Your task to perform on an android device: open app "Airtel Thanks" Image 0: 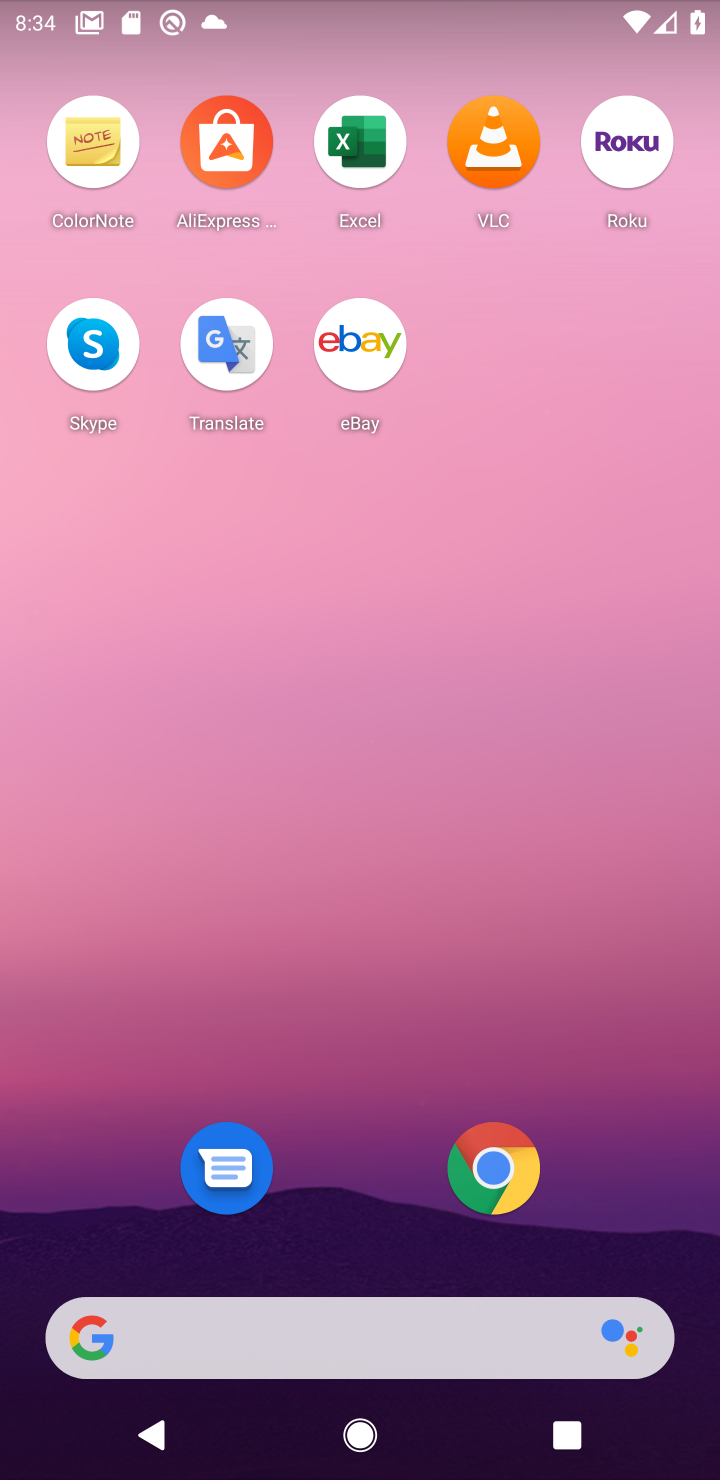
Step 0: drag from (382, 1060) to (137, 24)
Your task to perform on an android device: open app "Airtel Thanks" Image 1: 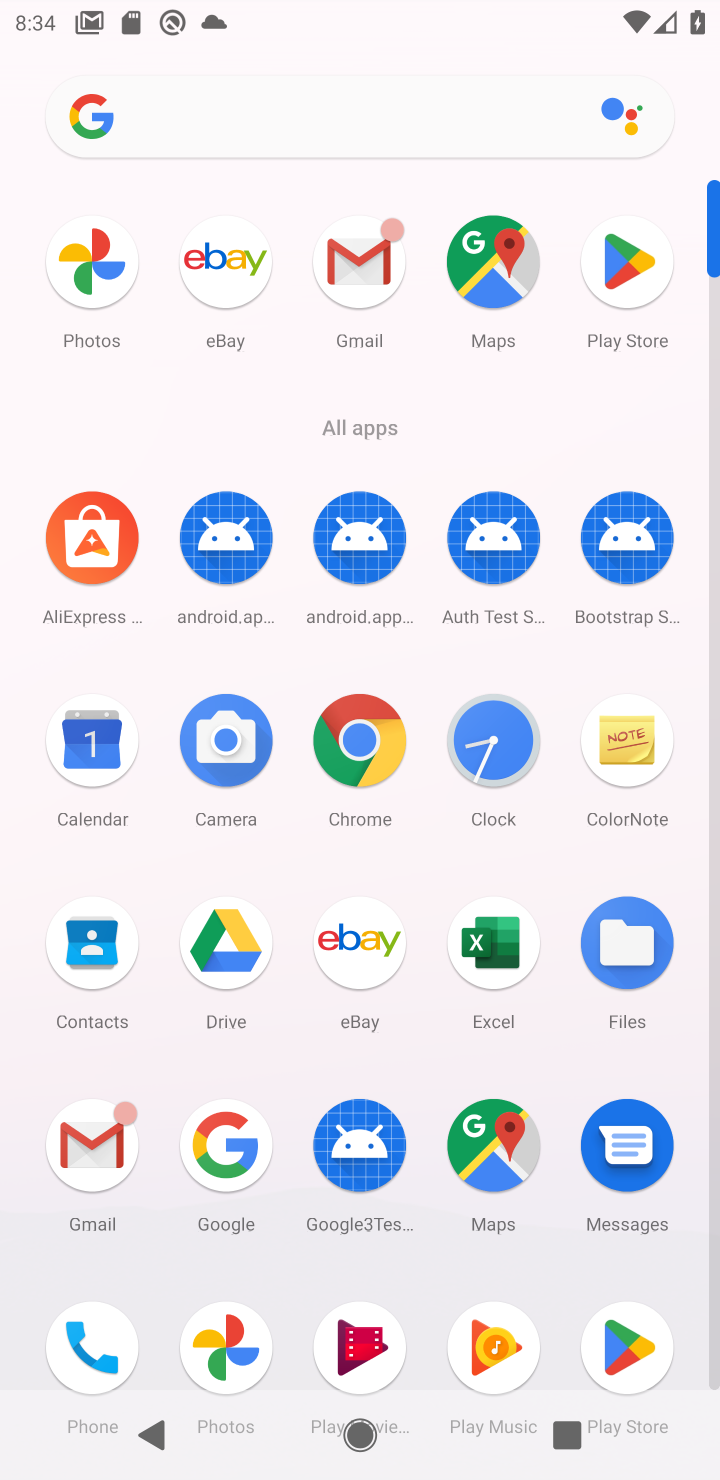
Step 1: click (622, 270)
Your task to perform on an android device: open app "Airtel Thanks" Image 2: 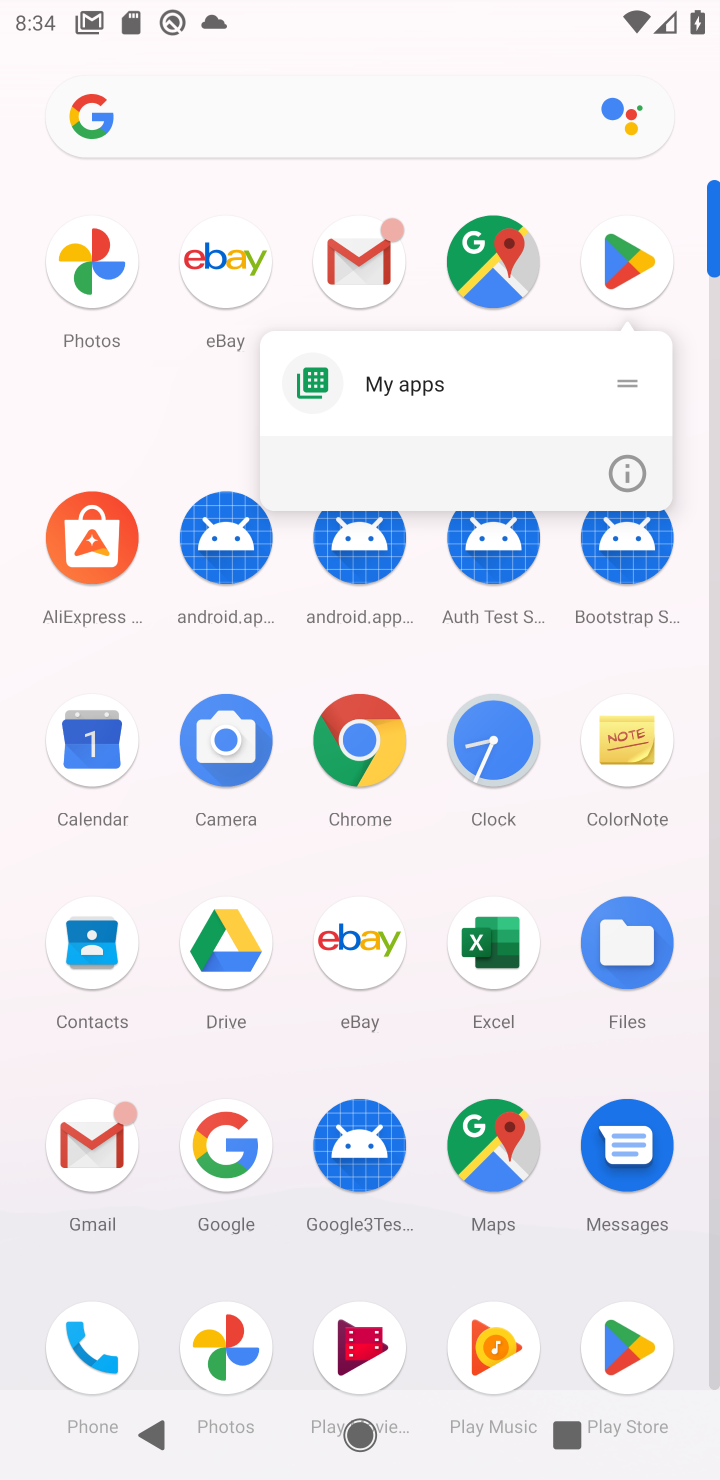
Step 2: click (645, 278)
Your task to perform on an android device: open app "Airtel Thanks" Image 3: 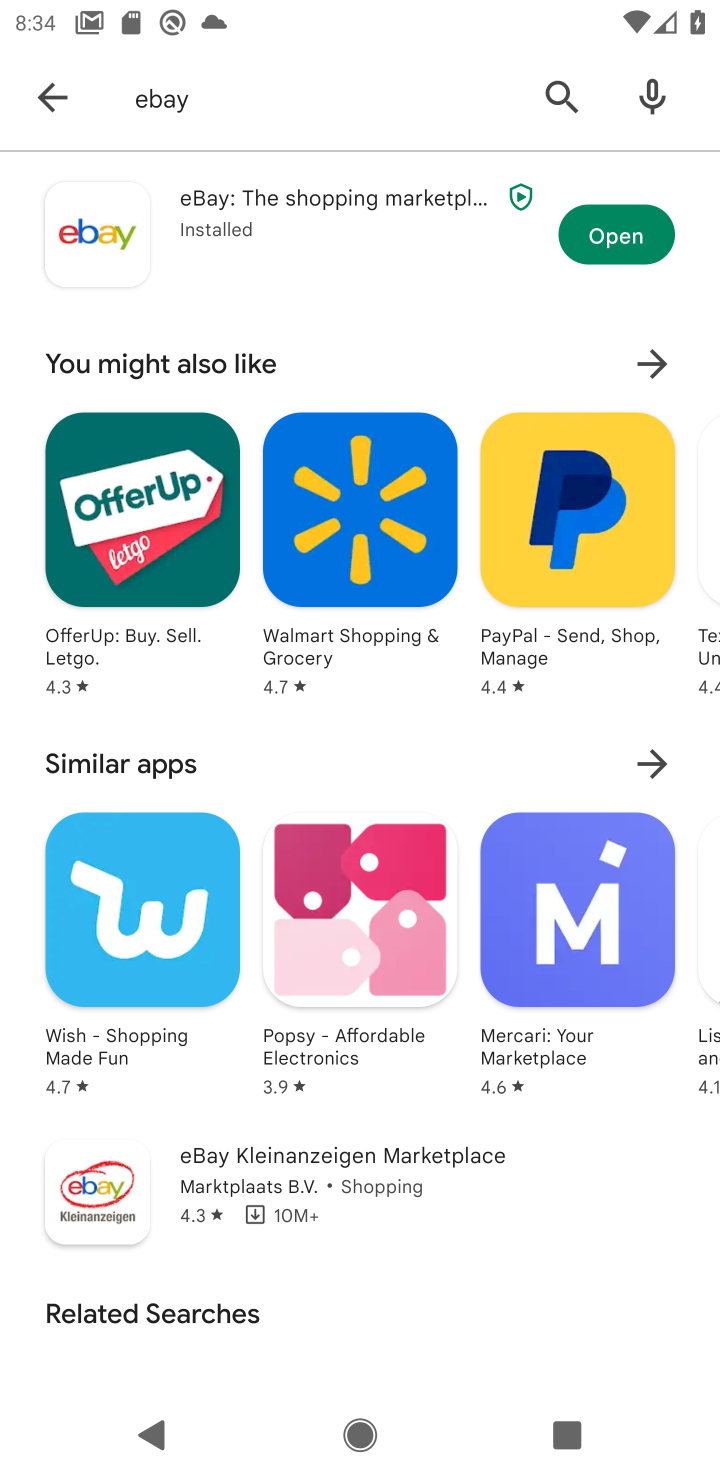
Step 3: click (262, 130)
Your task to perform on an android device: open app "Airtel Thanks" Image 4: 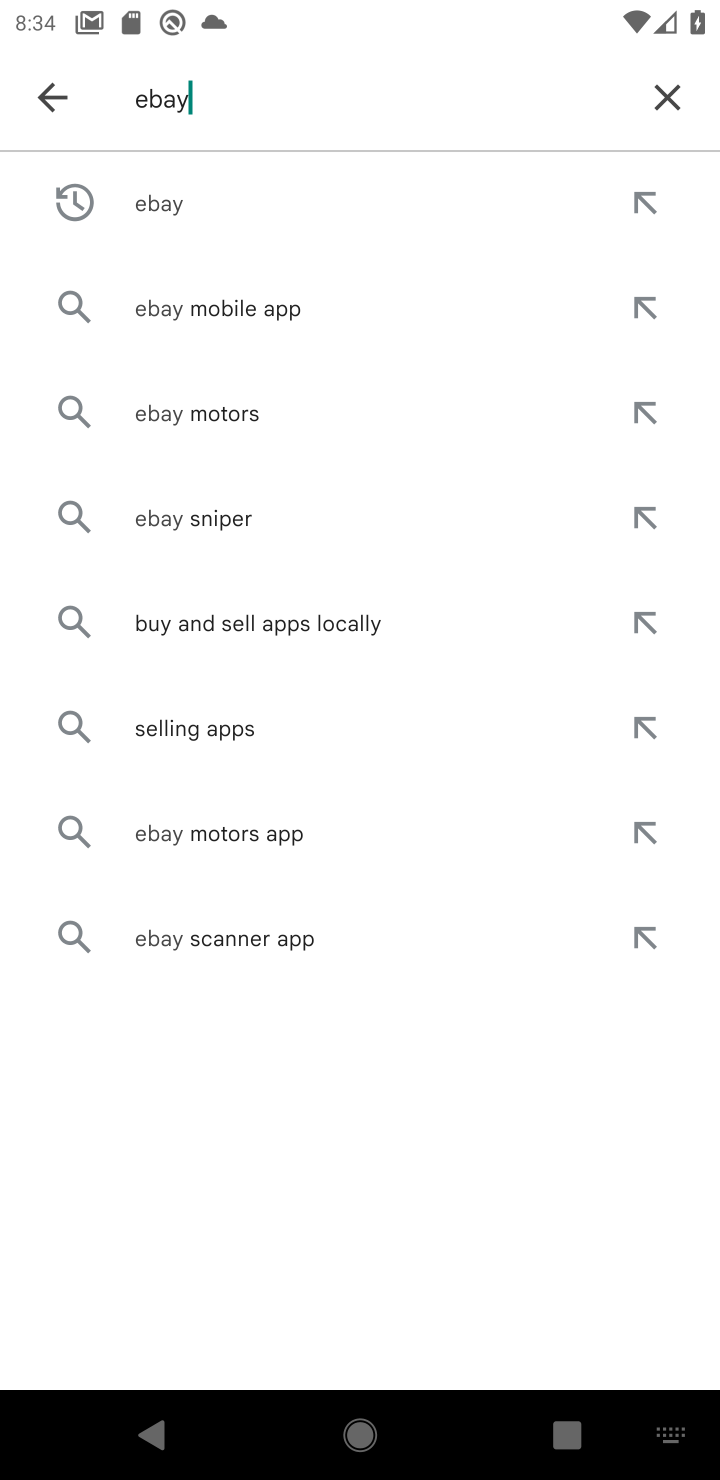
Step 4: click (661, 101)
Your task to perform on an android device: open app "Airtel Thanks" Image 5: 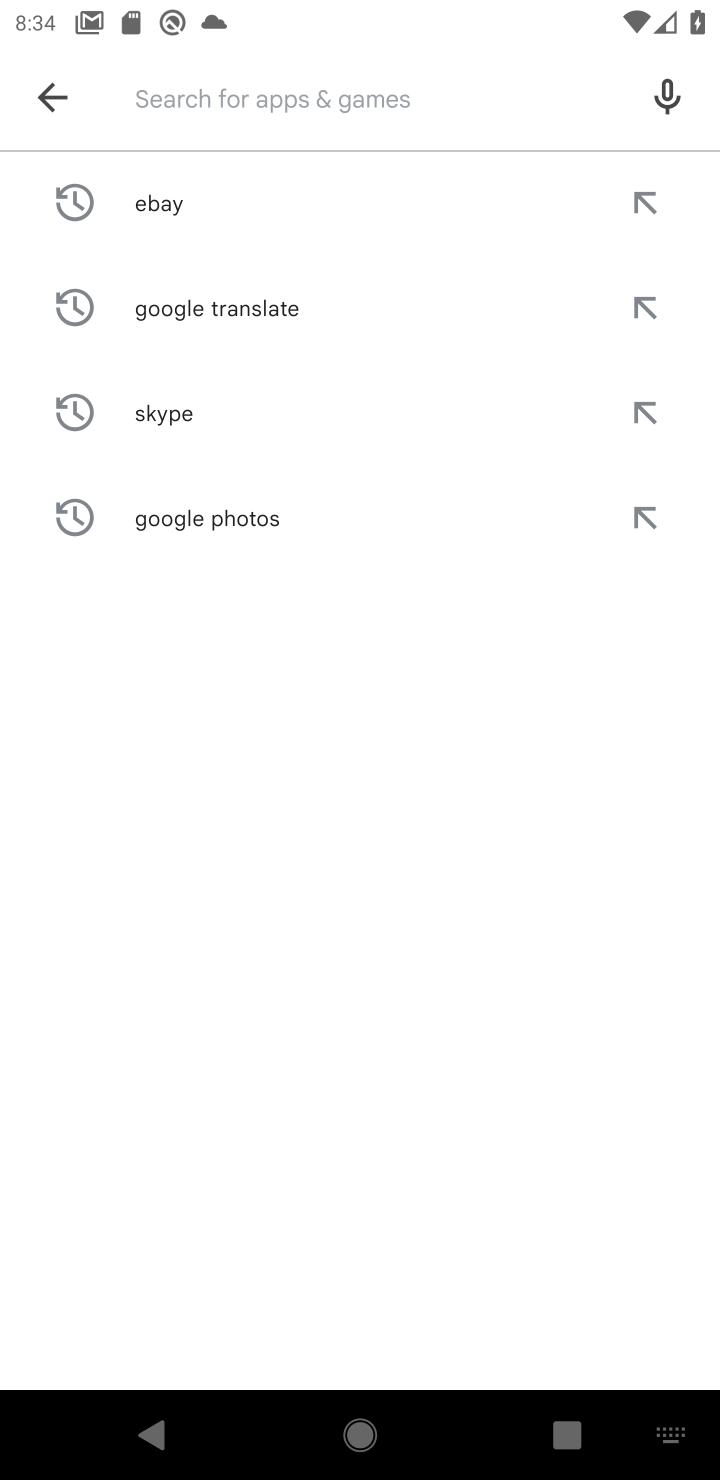
Step 5: type "Airtel Thanks "
Your task to perform on an android device: open app "Airtel Thanks" Image 6: 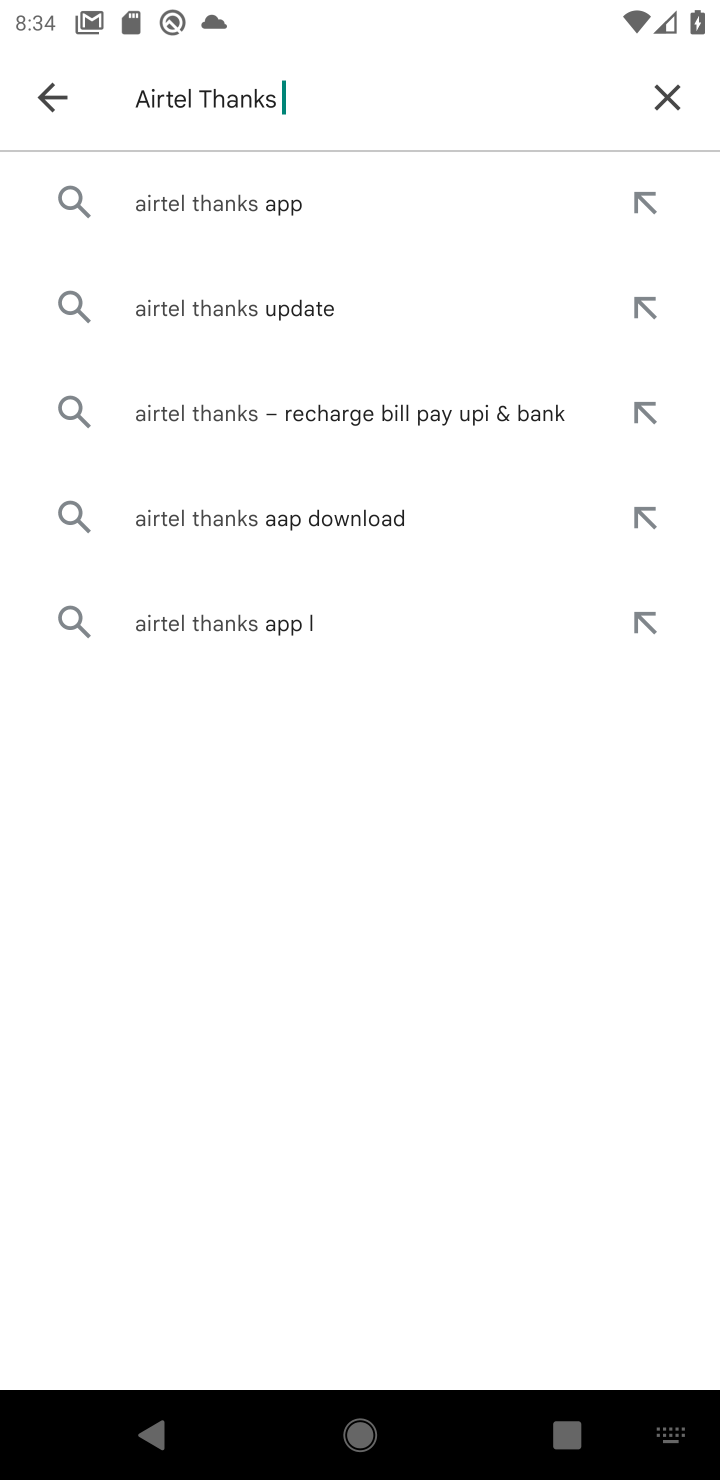
Step 6: click (203, 220)
Your task to perform on an android device: open app "Airtel Thanks" Image 7: 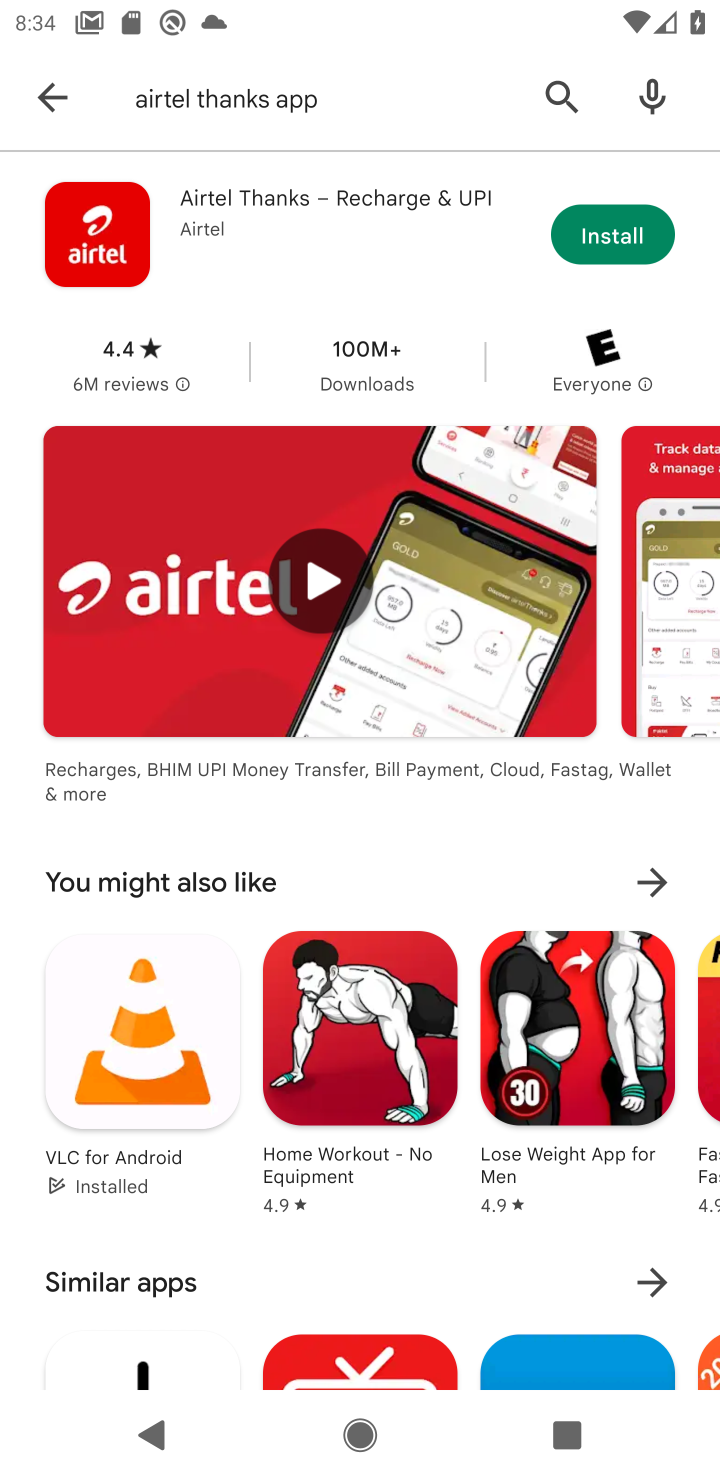
Step 7: task complete